Your task to perform on an android device: set the timer Image 0: 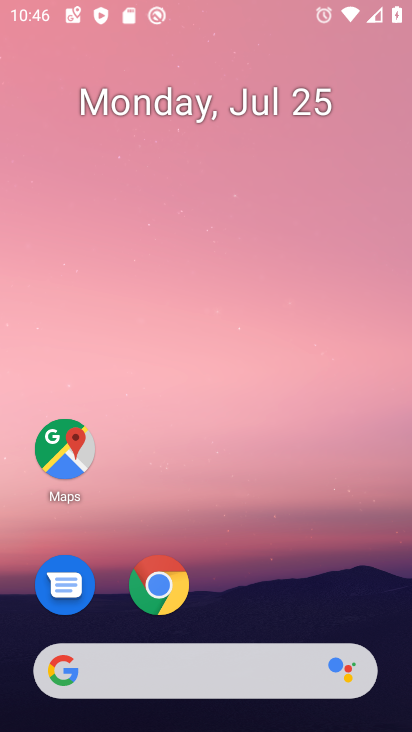
Step 0: drag from (227, 637) to (213, 99)
Your task to perform on an android device: set the timer Image 1: 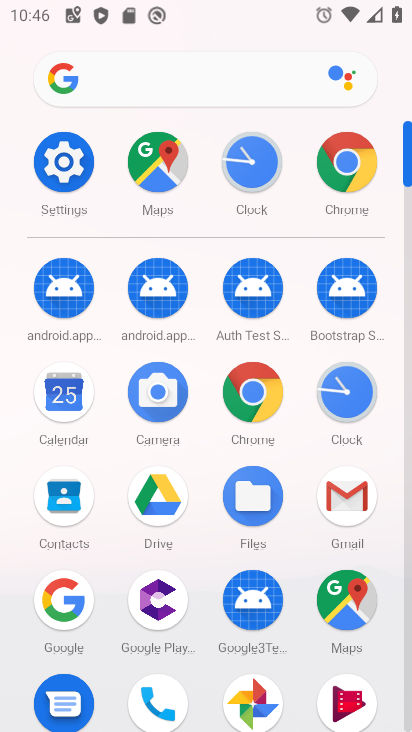
Step 1: click (352, 407)
Your task to perform on an android device: set the timer Image 2: 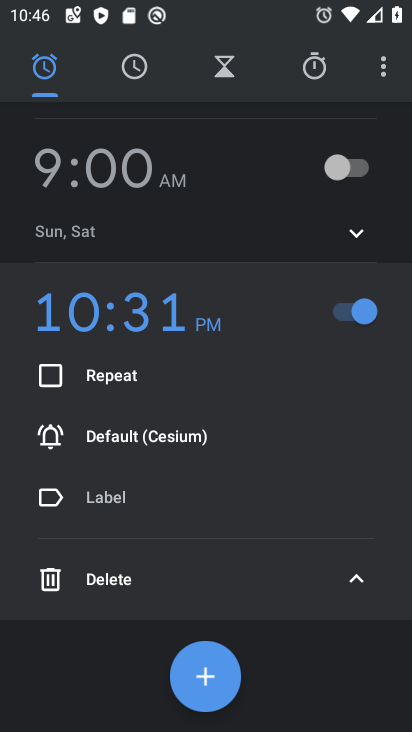
Step 2: click (130, 62)
Your task to perform on an android device: set the timer Image 3: 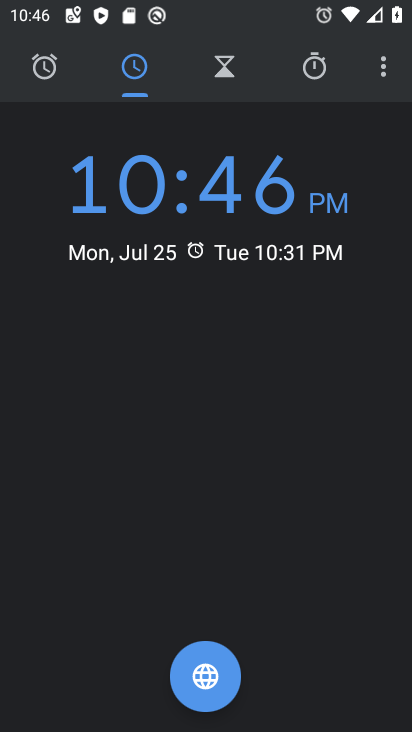
Step 3: click (233, 61)
Your task to perform on an android device: set the timer Image 4: 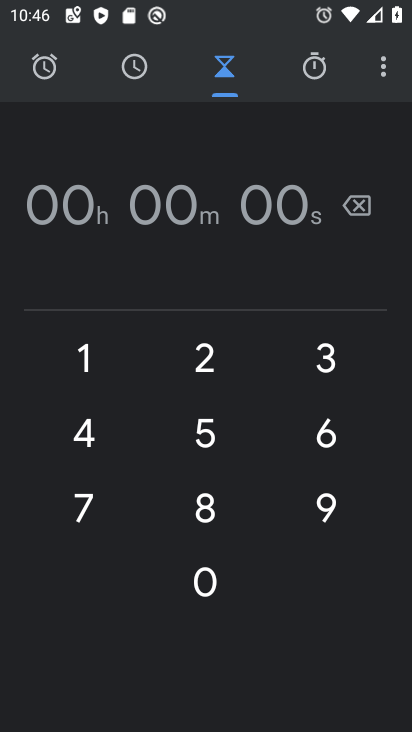
Step 4: click (225, 351)
Your task to perform on an android device: set the timer Image 5: 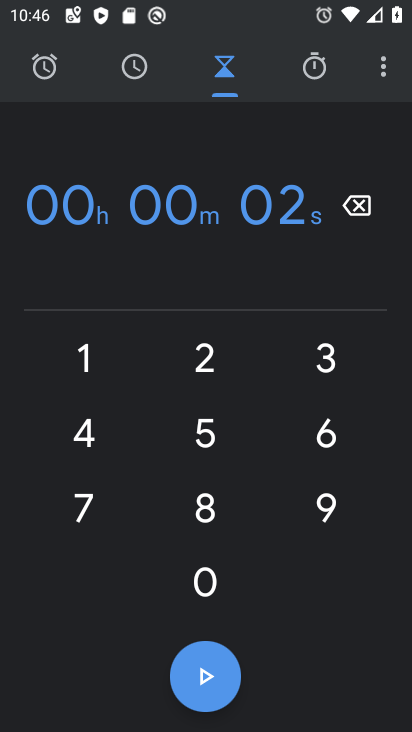
Step 5: click (228, 434)
Your task to perform on an android device: set the timer Image 6: 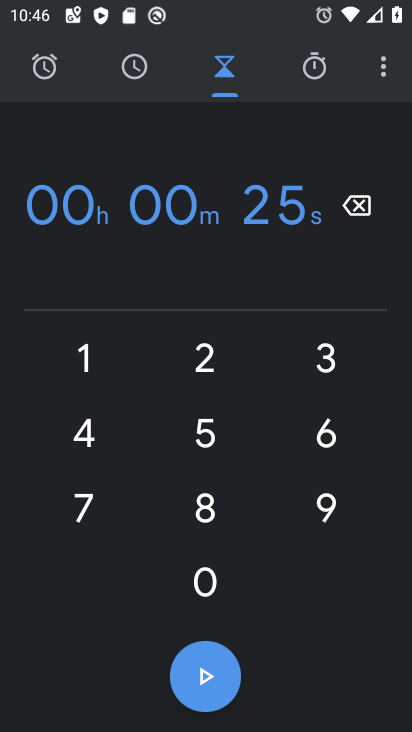
Step 6: click (204, 664)
Your task to perform on an android device: set the timer Image 7: 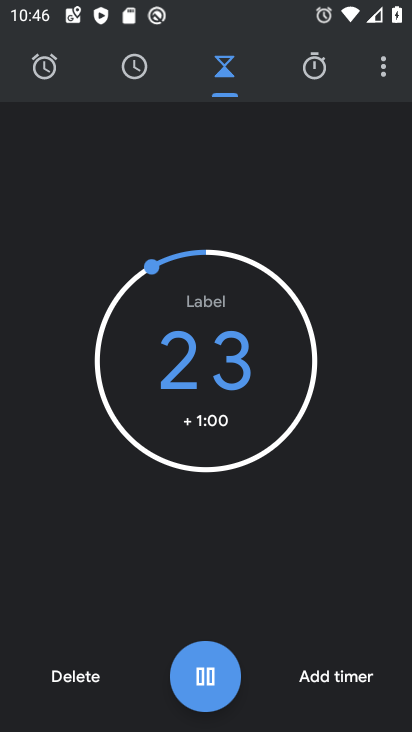
Step 7: task complete